Your task to perform on an android device: Search for macbook on costco, select the first entry, and add it to the cart. Image 0: 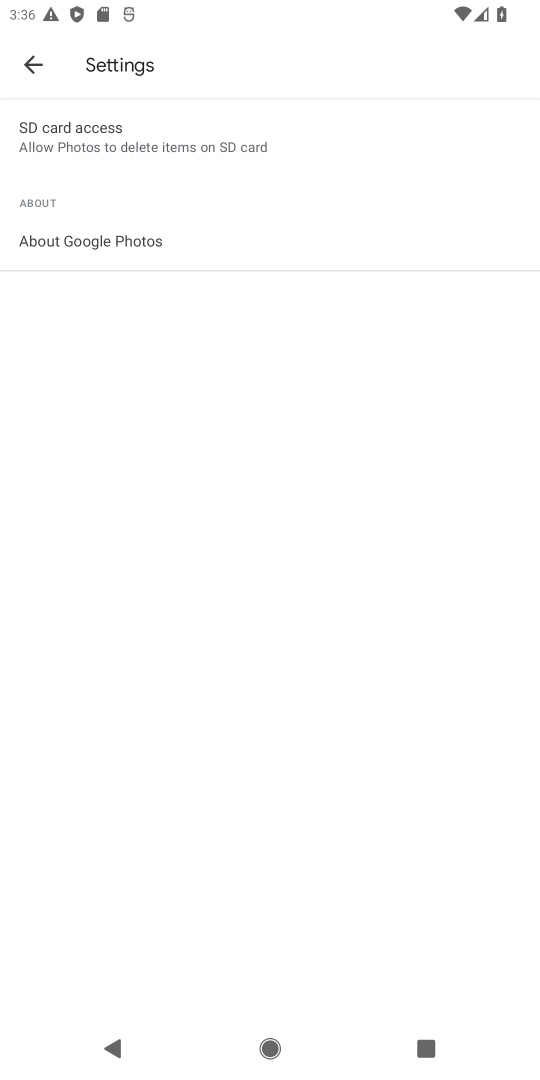
Step 0: press home button
Your task to perform on an android device: Search for macbook on costco, select the first entry, and add it to the cart. Image 1: 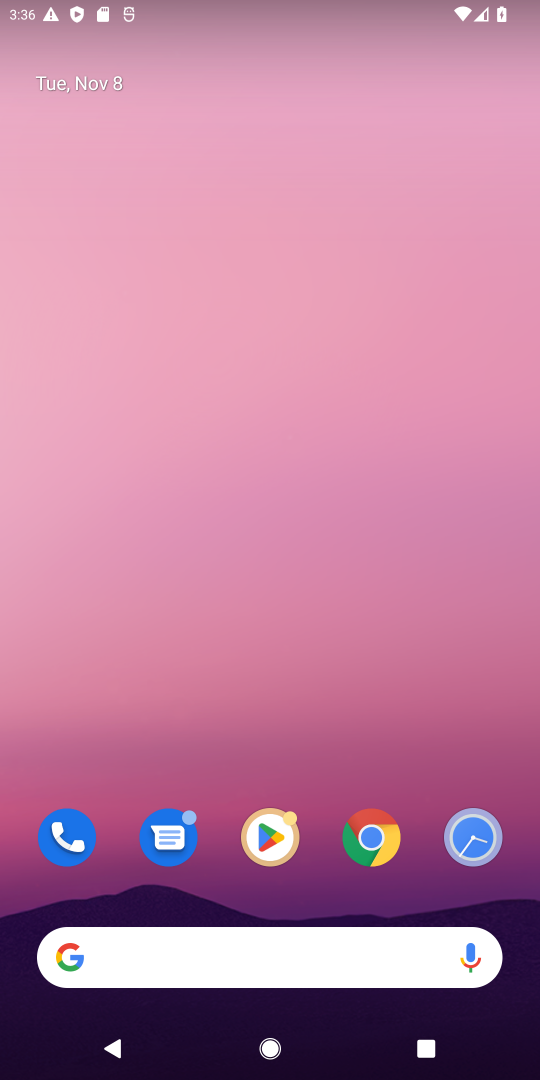
Step 1: click (370, 849)
Your task to perform on an android device: Search for macbook on costco, select the first entry, and add it to the cart. Image 2: 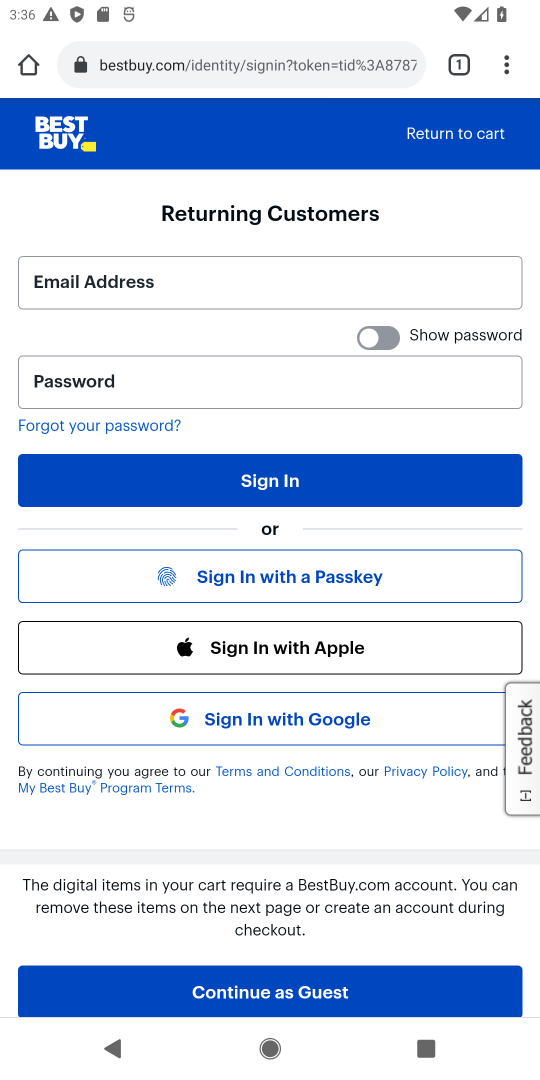
Step 2: click (454, 65)
Your task to perform on an android device: Search for macbook on costco, select the first entry, and add it to the cart. Image 3: 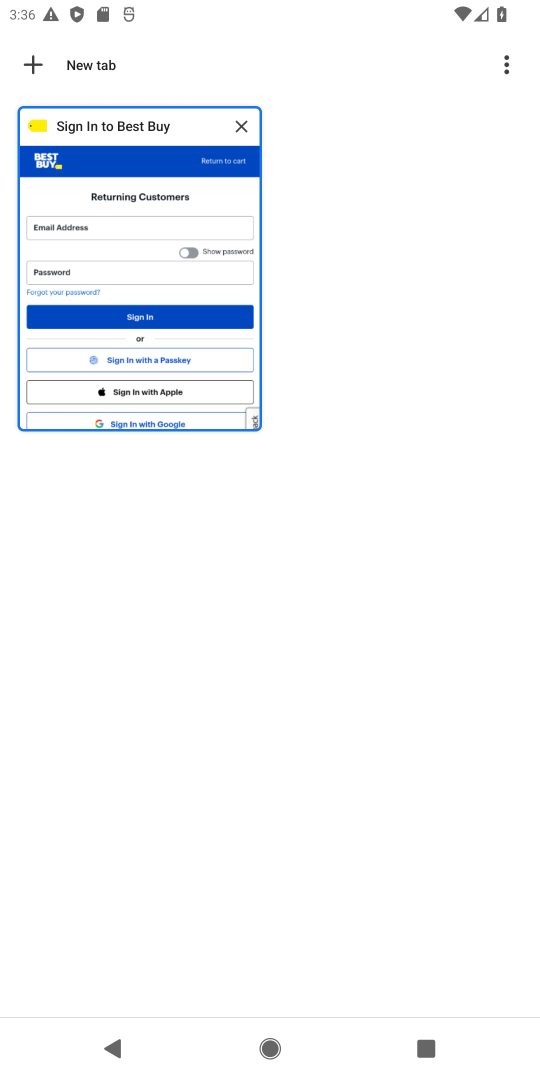
Step 3: click (30, 63)
Your task to perform on an android device: Search for macbook on costco, select the first entry, and add it to the cart. Image 4: 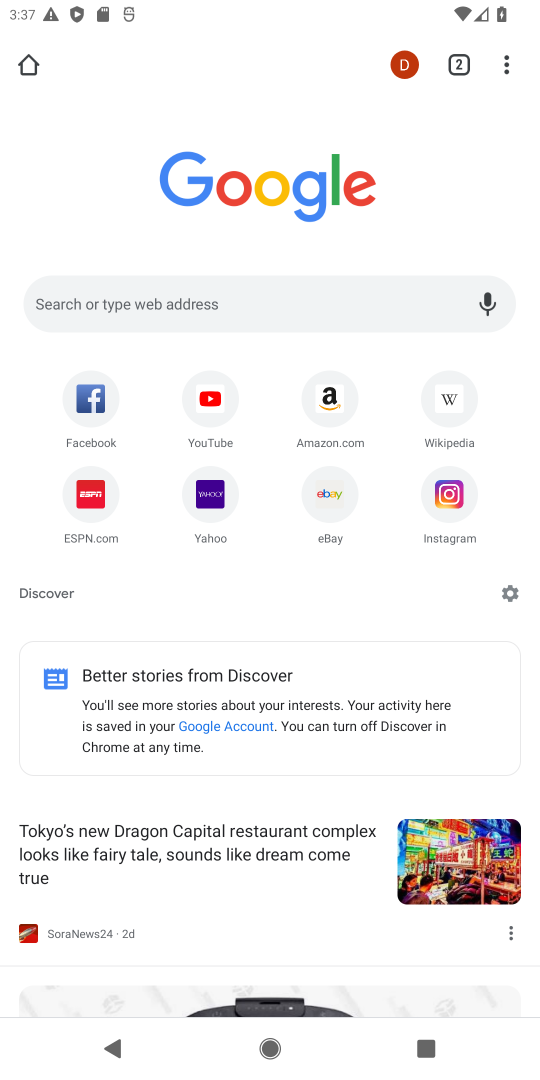
Step 4: click (166, 303)
Your task to perform on an android device: Search for macbook on costco, select the first entry, and add it to the cart. Image 5: 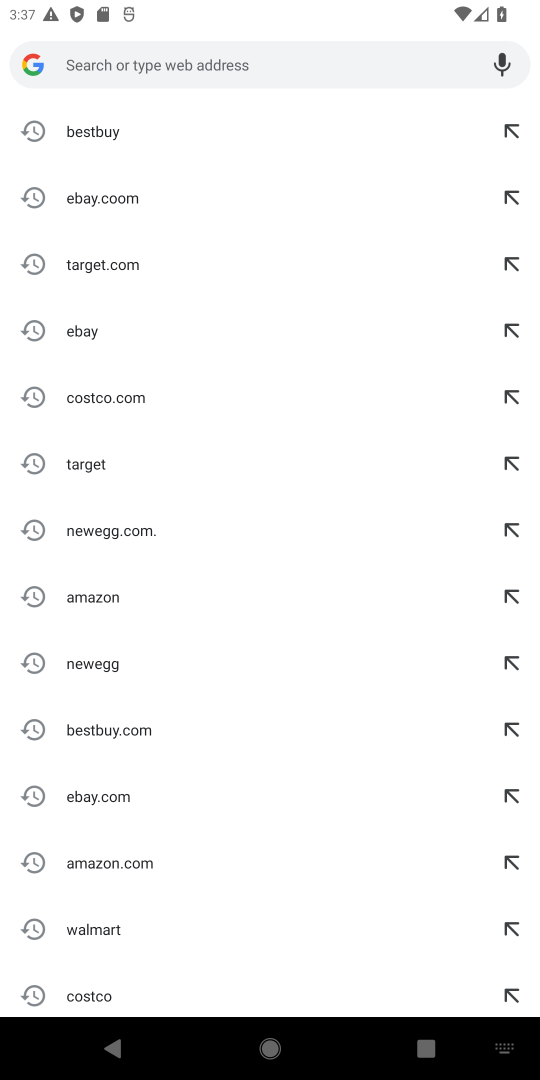
Step 5: click (93, 995)
Your task to perform on an android device: Search for macbook on costco, select the first entry, and add it to the cart. Image 6: 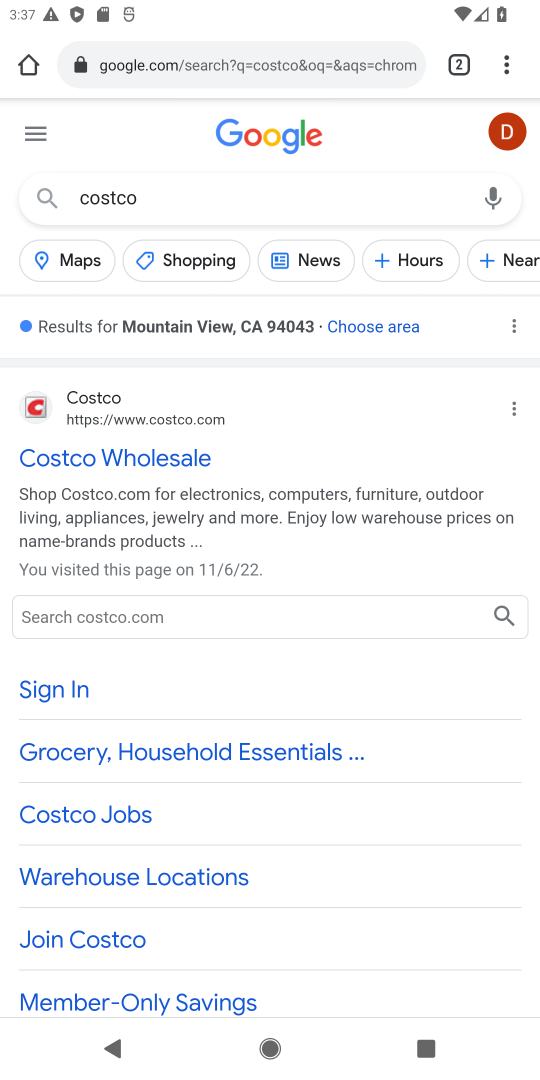
Step 6: click (82, 614)
Your task to perform on an android device: Search for macbook on costco, select the first entry, and add it to the cart. Image 7: 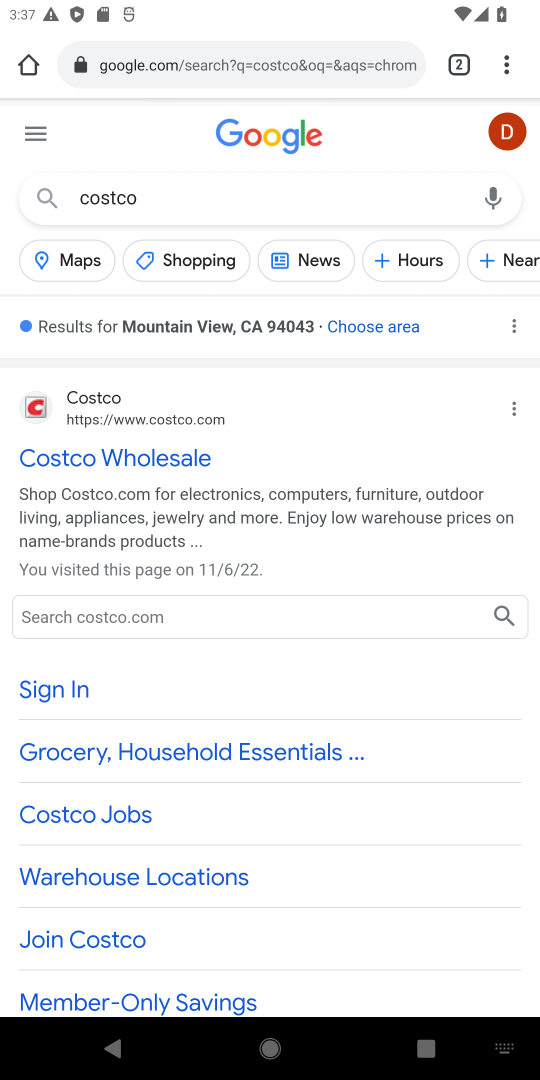
Step 7: type "macbook"
Your task to perform on an android device: Search for macbook on costco, select the first entry, and add it to the cart. Image 8: 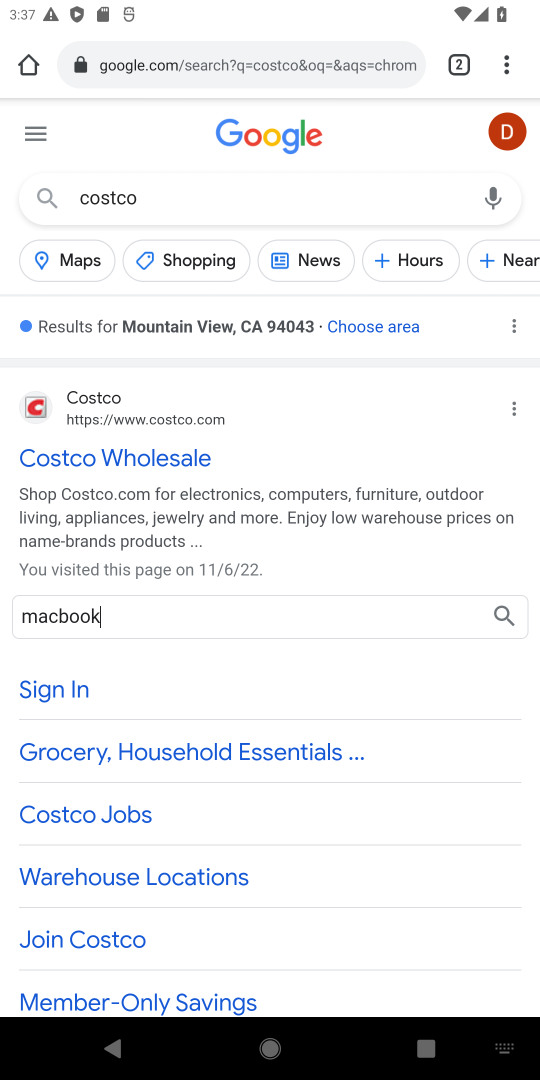
Step 8: click (506, 610)
Your task to perform on an android device: Search for macbook on costco, select the first entry, and add it to the cart. Image 9: 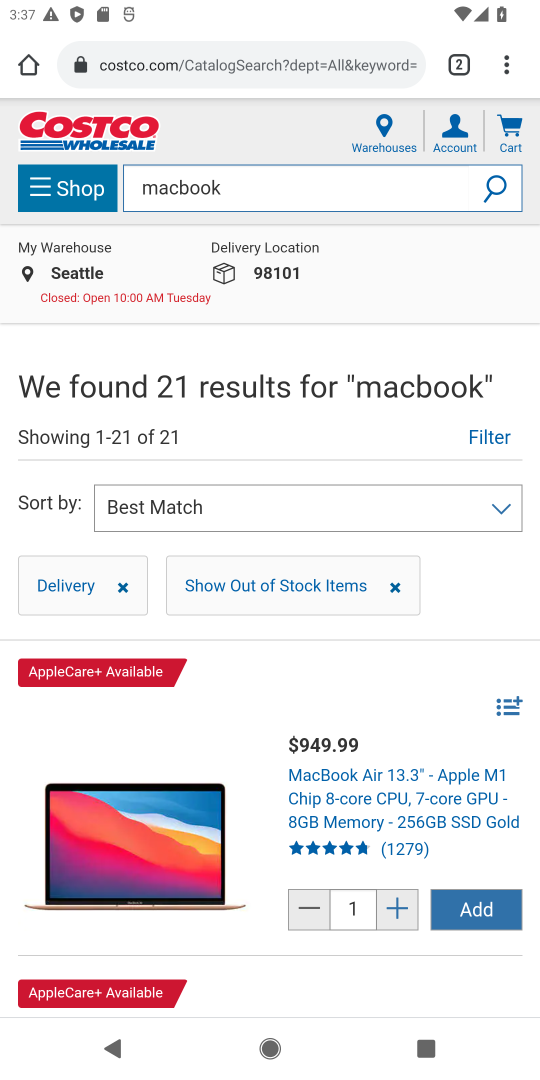
Step 9: click (491, 901)
Your task to perform on an android device: Search for macbook on costco, select the first entry, and add it to the cart. Image 10: 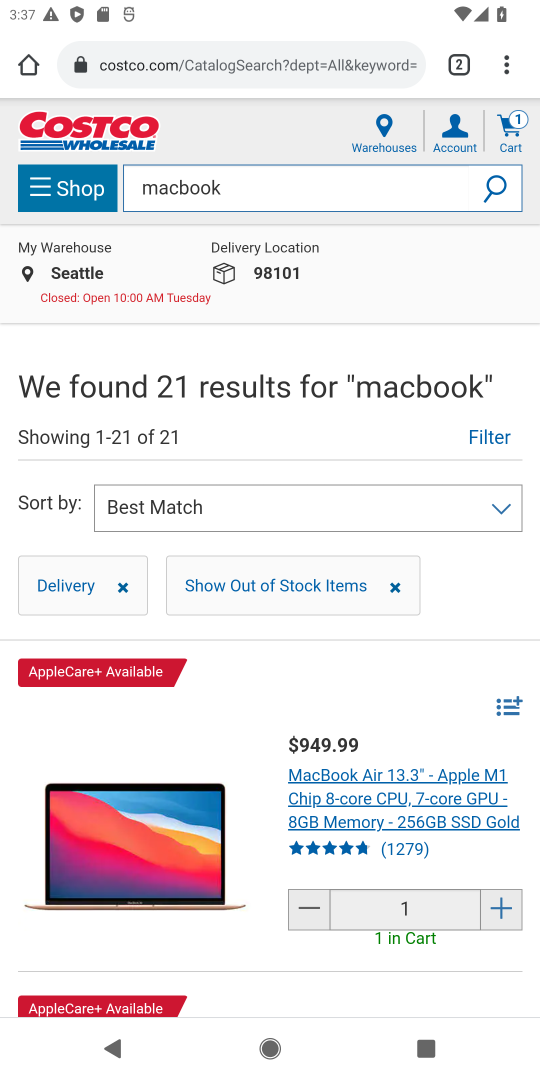
Step 10: task complete